Your task to perform on an android device: Go to Reddit.com Image 0: 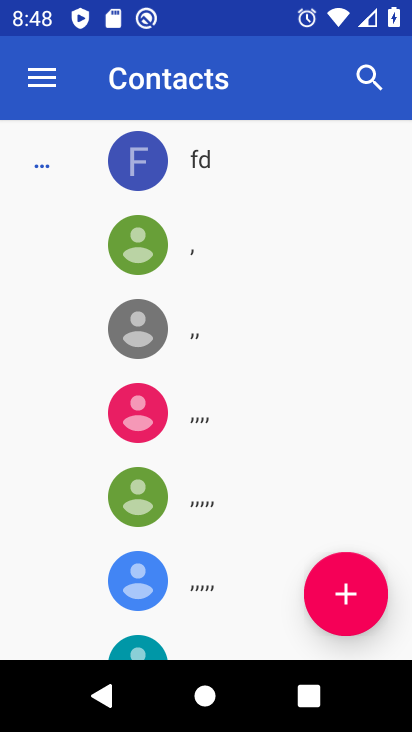
Step 0: press back button
Your task to perform on an android device: Go to Reddit.com Image 1: 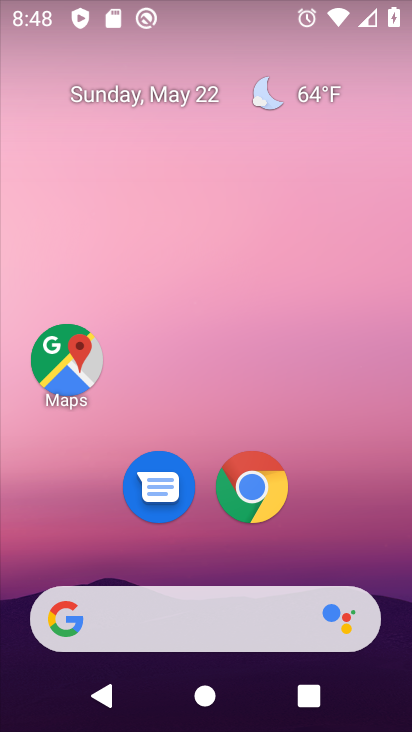
Step 1: click (255, 491)
Your task to perform on an android device: Go to Reddit.com Image 2: 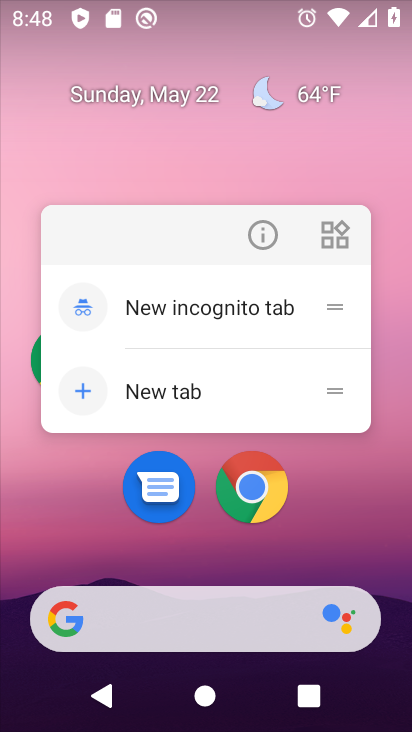
Step 2: click (250, 492)
Your task to perform on an android device: Go to Reddit.com Image 3: 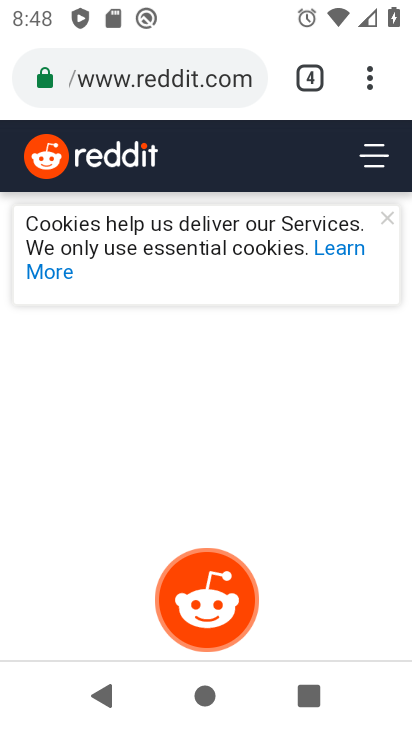
Step 3: task complete